Your task to perform on an android device: Go to calendar. Show me events next week Image 0: 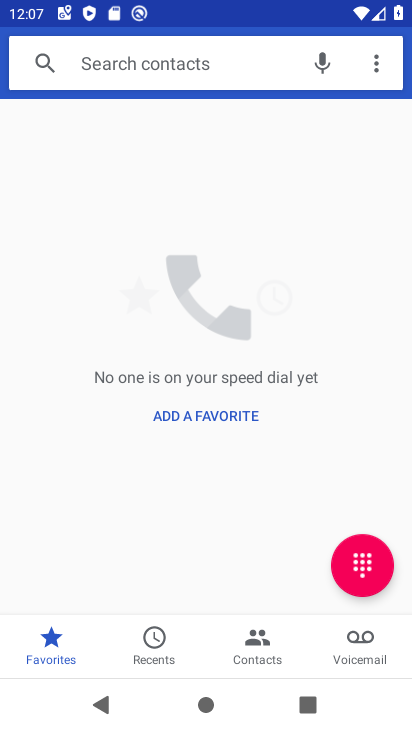
Step 0: press home button
Your task to perform on an android device: Go to calendar. Show me events next week Image 1: 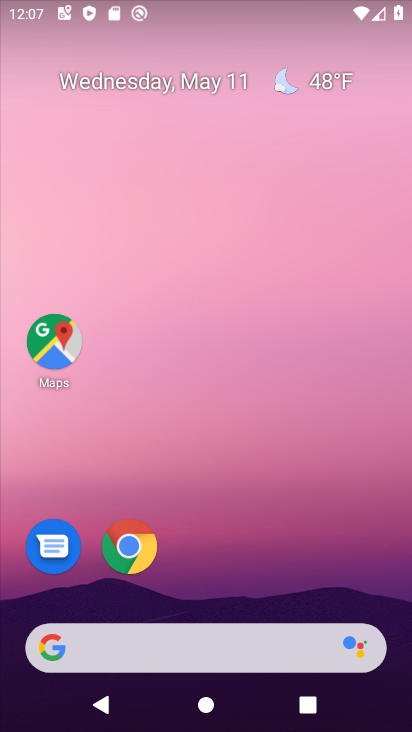
Step 1: drag from (242, 591) to (268, 64)
Your task to perform on an android device: Go to calendar. Show me events next week Image 2: 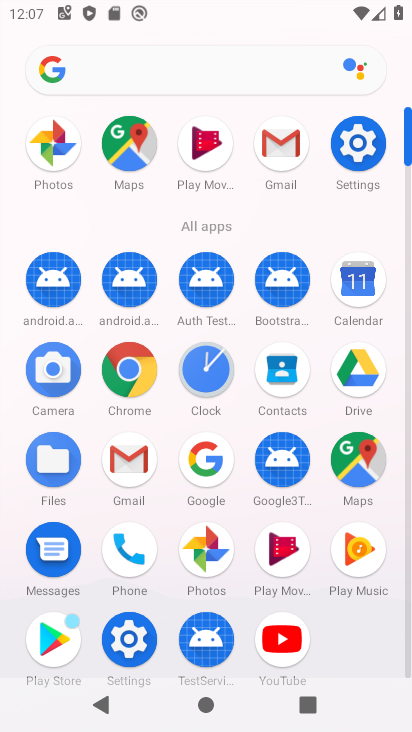
Step 2: click (360, 283)
Your task to perform on an android device: Go to calendar. Show me events next week Image 3: 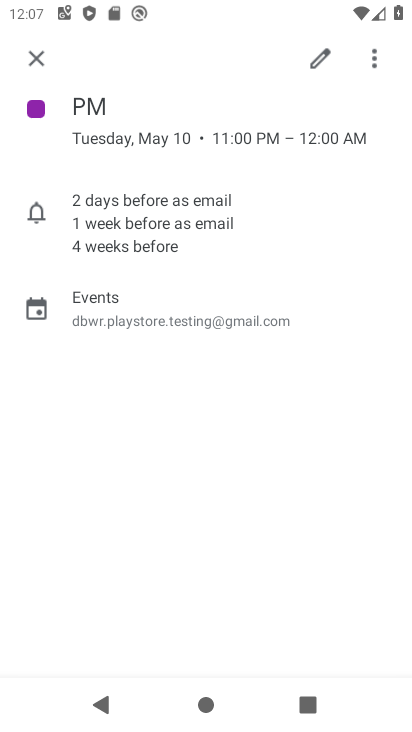
Step 3: click (28, 50)
Your task to perform on an android device: Go to calendar. Show me events next week Image 4: 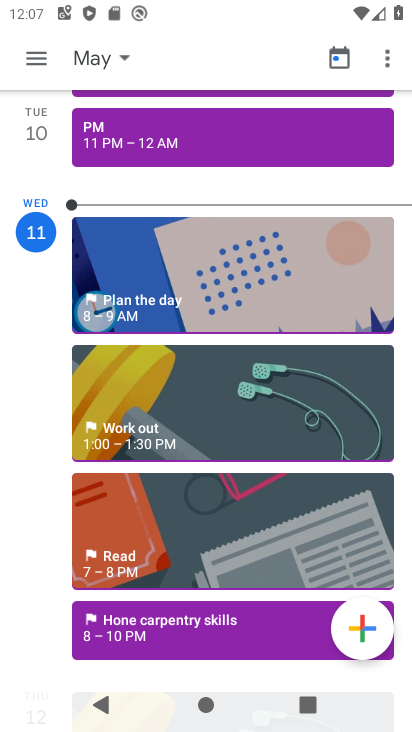
Step 4: click (100, 58)
Your task to perform on an android device: Go to calendar. Show me events next week Image 5: 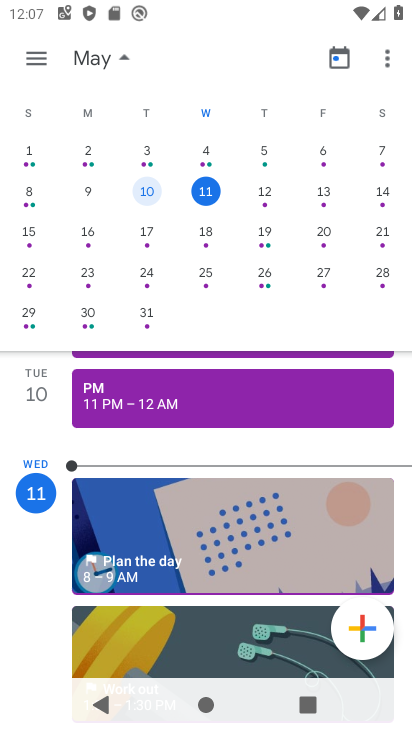
Step 5: click (25, 229)
Your task to perform on an android device: Go to calendar. Show me events next week Image 6: 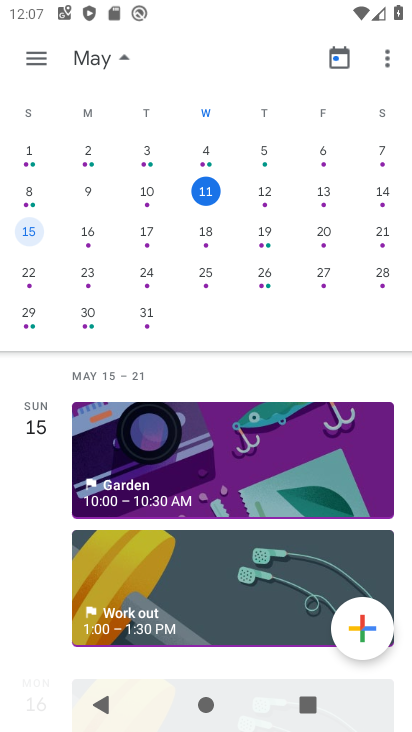
Step 6: click (33, 55)
Your task to perform on an android device: Go to calendar. Show me events next week Image 7: 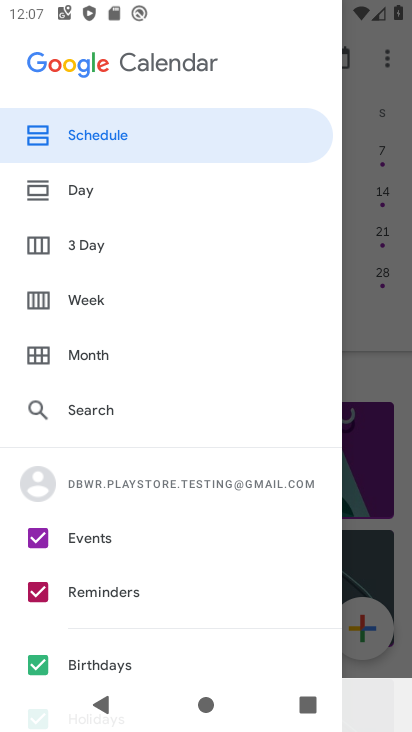
Step 7: click (89, 304)
Your task to perform on an android device: Go to calendar. Show me events next week Image 8: 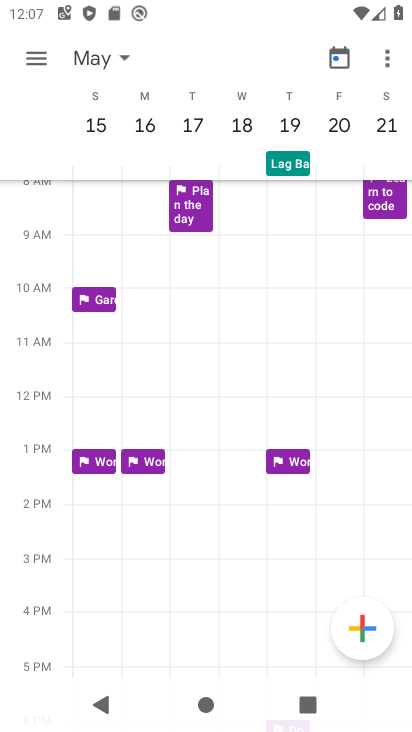
Step 8: click (32, 53)
Your task to perform on an android device: Go to calendar. Show me events next week Image 9: 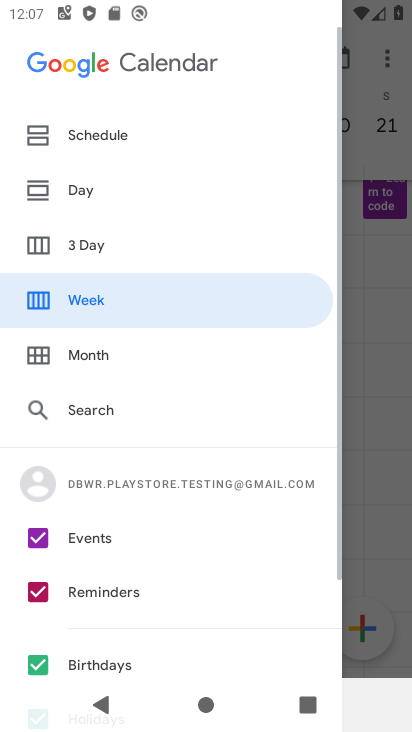
Step 9: click (84, 136)
Your task to perform on an android device: Go to calendar. Show me events next week Image 10: 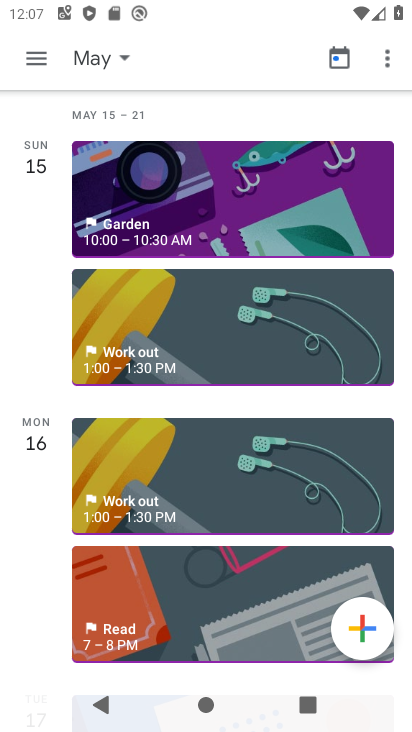
Step 10: click (190, 218)
Your task to perform on an android device: Go to calendar. Show me events next week Image 11: 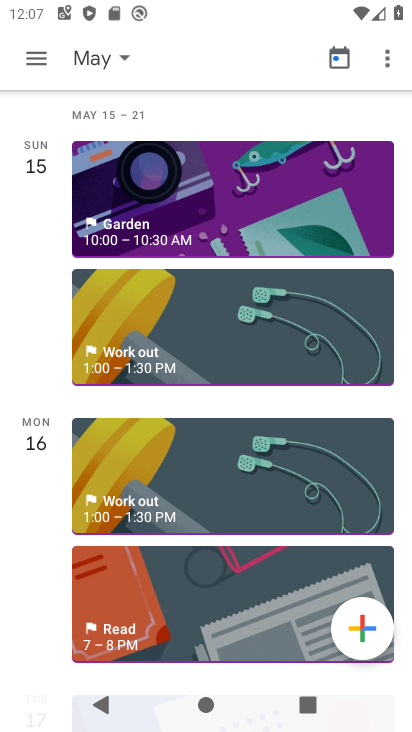
Step 11: click (188, 219)
Your task to perform on an android device: Go to calendar. Show me events next week Image 12: 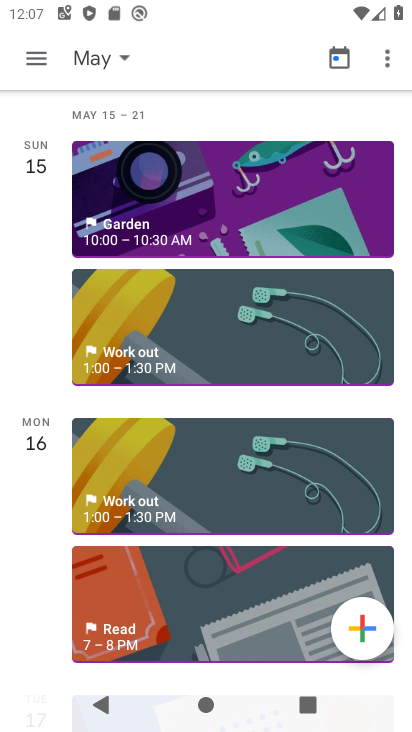
Step 12: click (167, 237)
Your task to perform on an android device: Go to calendar. Show me events next week Image 13: 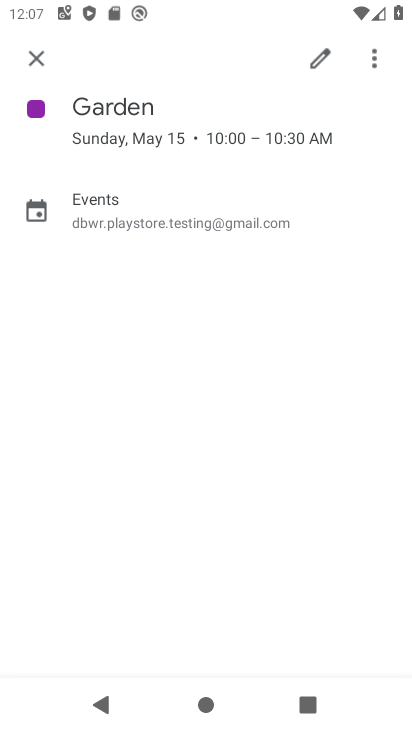
Step 13: task complete